Your task to perform on an android device: turn off picture-in-picture Image 0: 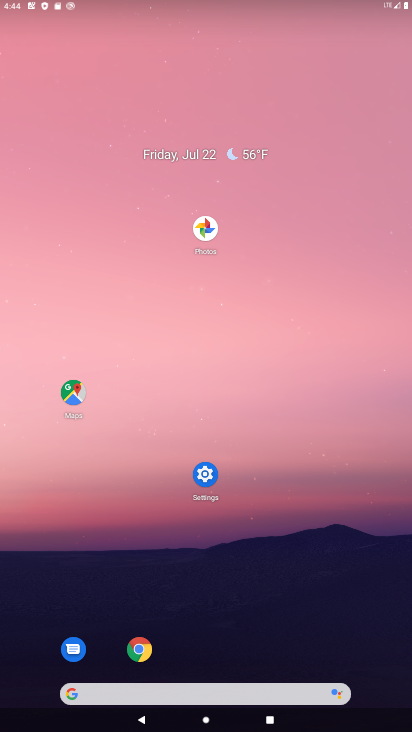
Step 0: drag from (174, 468) to (143, 26)
Your task to perform on an android device: turn off picture-in-picture Image 1: 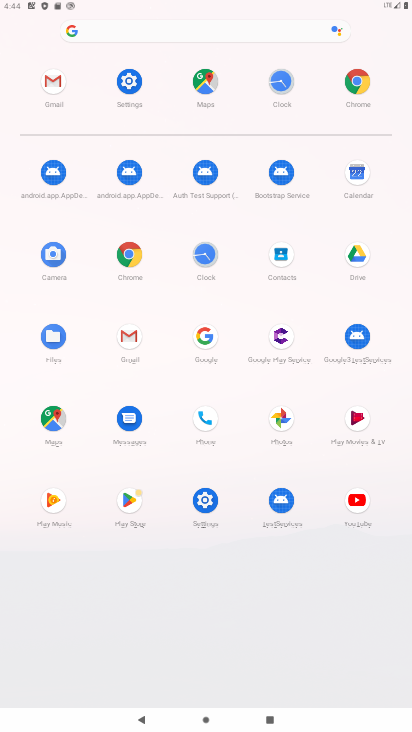
Step 1: click (123, 335)
Your task to perform on an android device: turn off picture-in-picture Image 2: 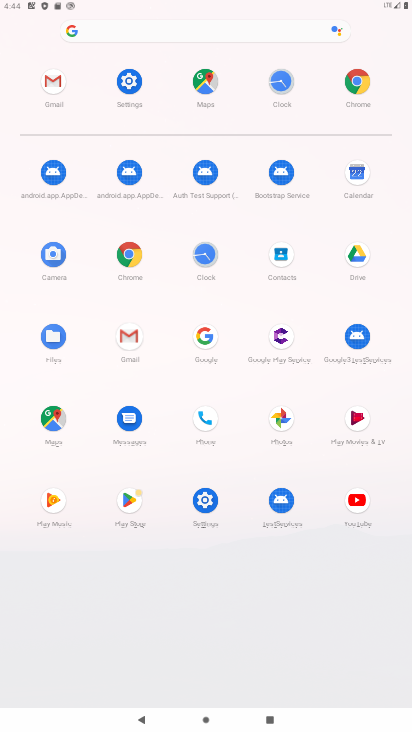
Step 2: click (123, 256)
Your task to perform on an android device: turn off picture-in-picture Image 3: 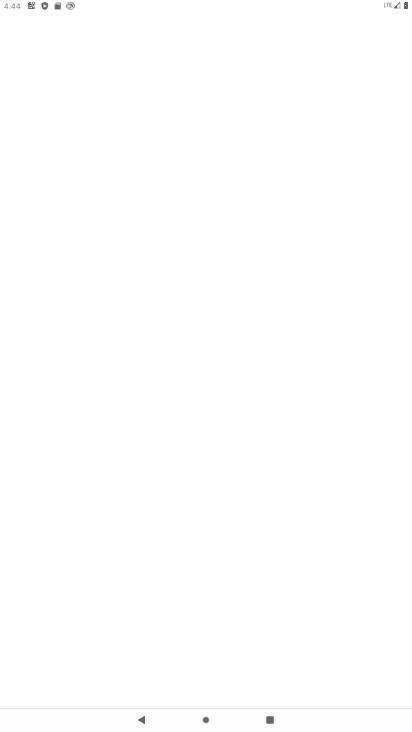
Step 3: click (123, 256)
Your task to perform on an android device: turn off picture-in-picture Image 4: 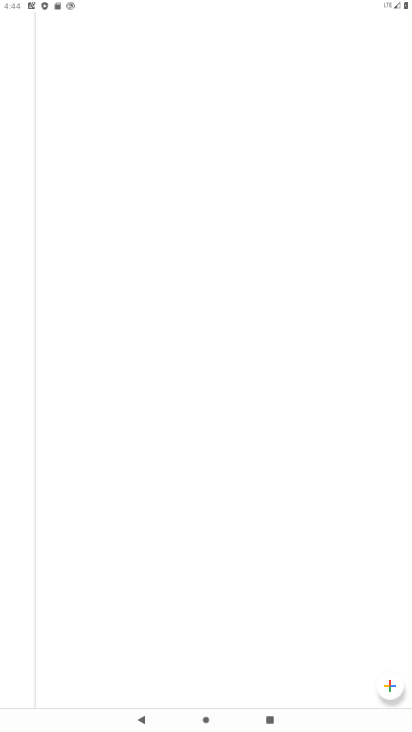
Step 4: click (123, 256)
Your task to perform on an android device: turn off picture-in-picture Image 5: 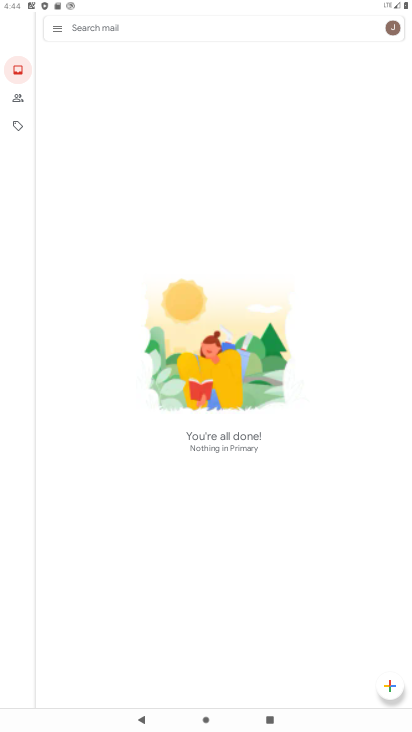
Step 5: press back button
Your task to perform on an android device: turn off picture-in-picture Image 6: 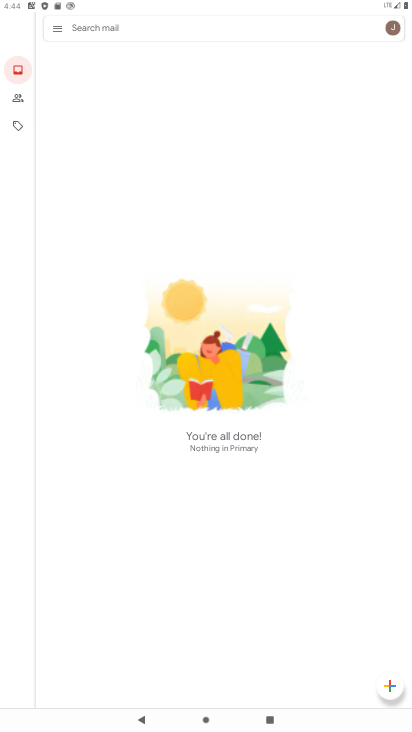
Step 6: press back button
Your task to perform on an android device: turn off picture-in-picture Image 7: 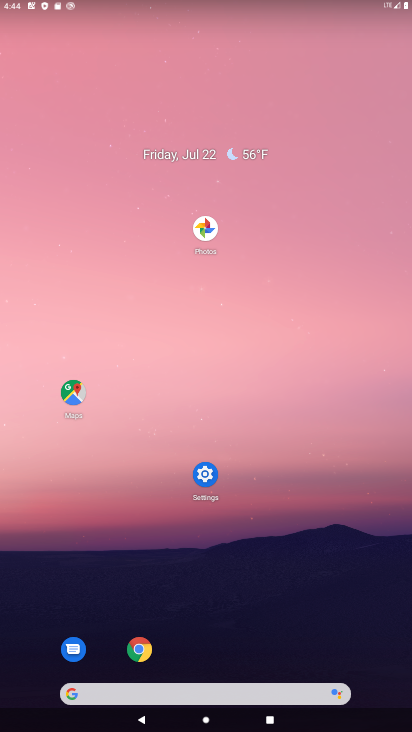
Step 7: click (140, 650)
Your task to perform on an android device: turn off picture-in-picture Image 8: 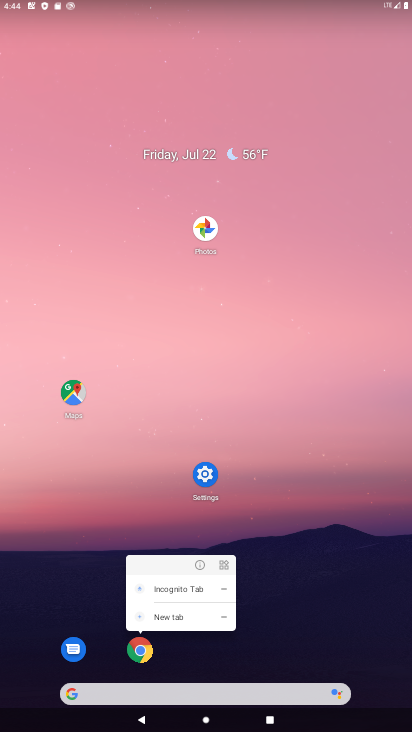
Step 8: click (201, 567)
Your task to perform on an android device: turn off picture-in-picture Image 9: 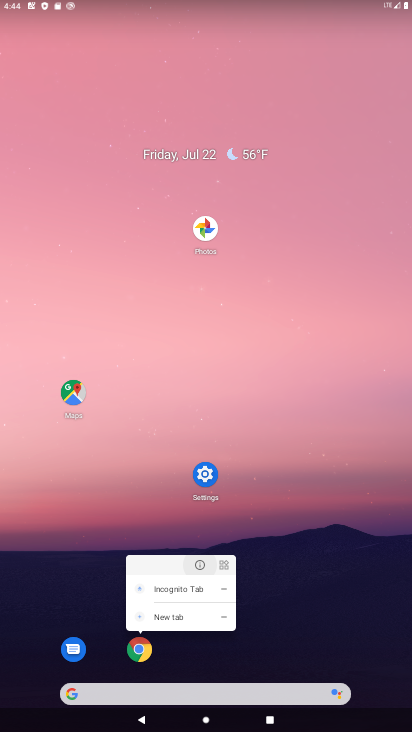
Step 9: click (201, 566)
Your task to perform on an android device: turn off picture-in-picture Image 10: 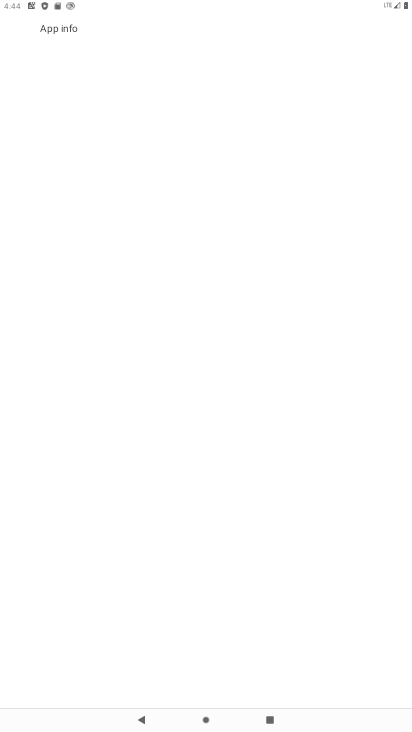
Step 10: click (202, 565)
Your task to perform on an android device: turn off picture-in-picture Image 11: 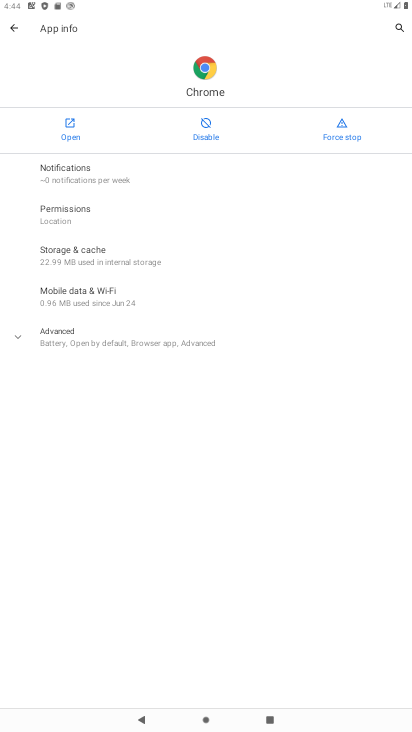
Step 11: click (64, 332)
Your task to perform on an android device: turn off picture-in-picture Image 12: 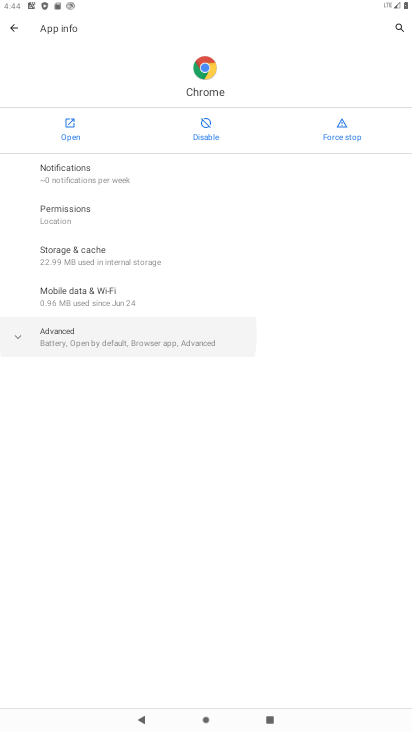
Step 12: click (66, 331)
Your task to perform on an android device: turn off picture-in-picture Image 13: 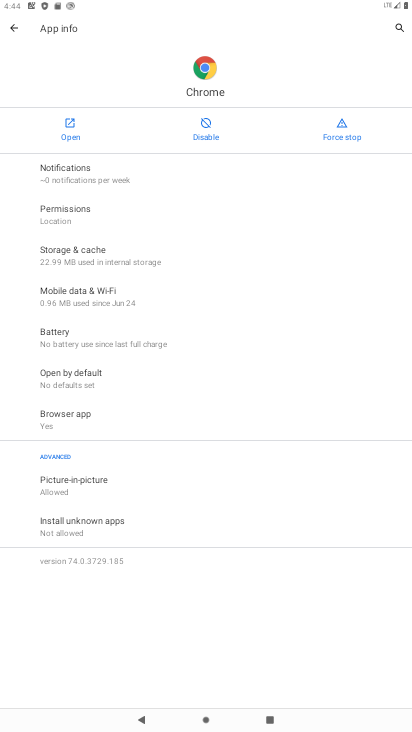
Step 13: click (44, 482)
Your task to perform on an android device: turn off picture-in-picture Image 14: 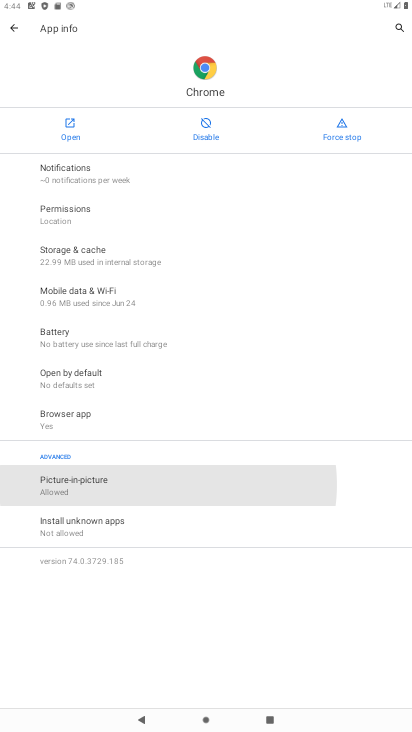
Step 14: click (44, 482)
Your task to perform on an android device: turn off picture-in-picture Image 15: 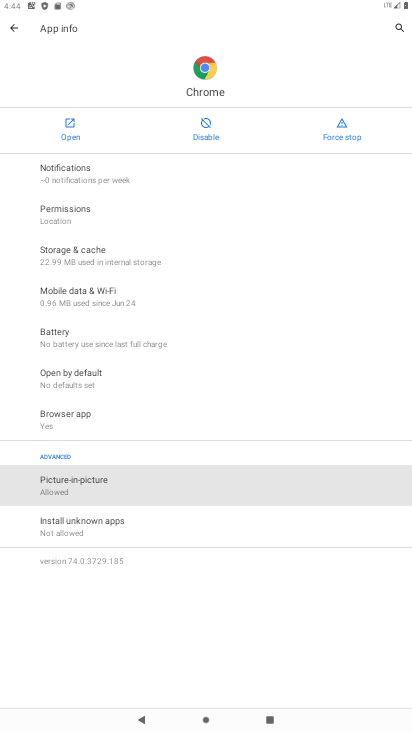
Step 15: click (44, 482)
Your task to perform on an android device: turn off picture-in-picture Image 16: 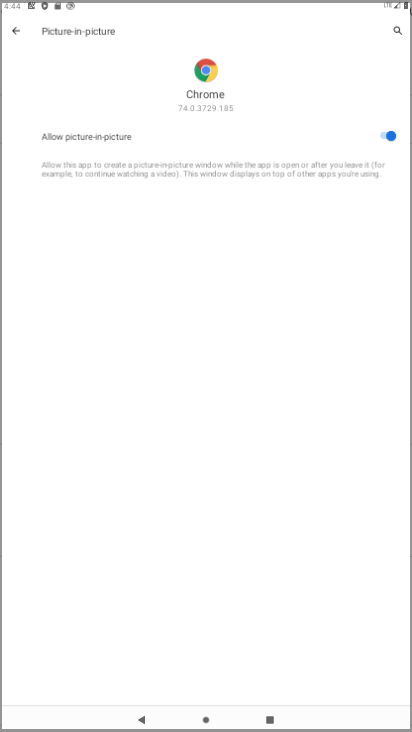
Step 16: click (44, 482)
Your task to perform on an android device: turn off picture-in-picture Image 17: 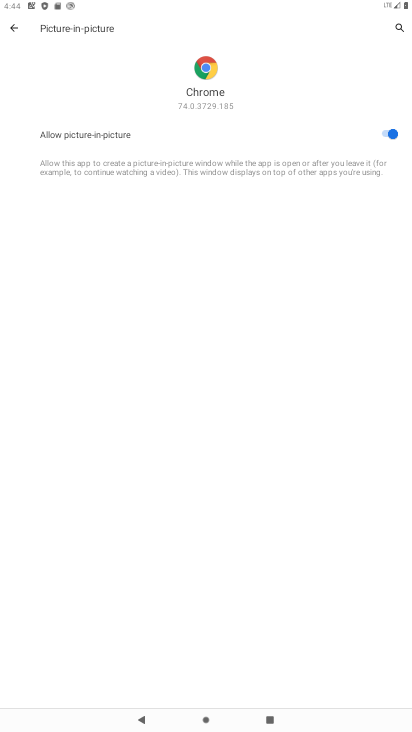
Step 17: click (64, 485)
Your task to perform on an android device: turn off picture-in-picture Image 18: 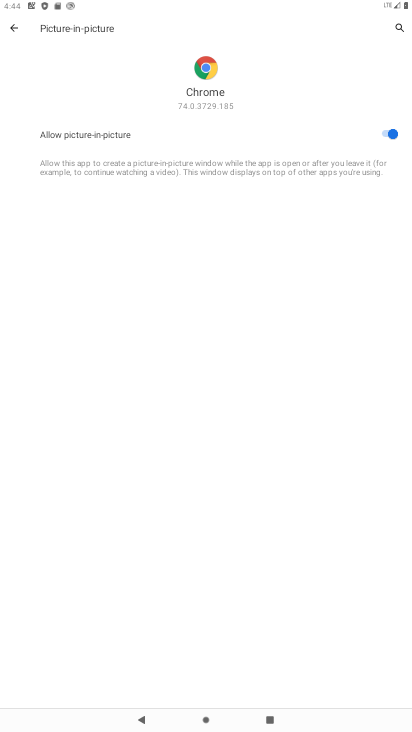
Step 18: click (64, 485)
Your task to perform on an android device: turn off picture-in-picture Image 19: 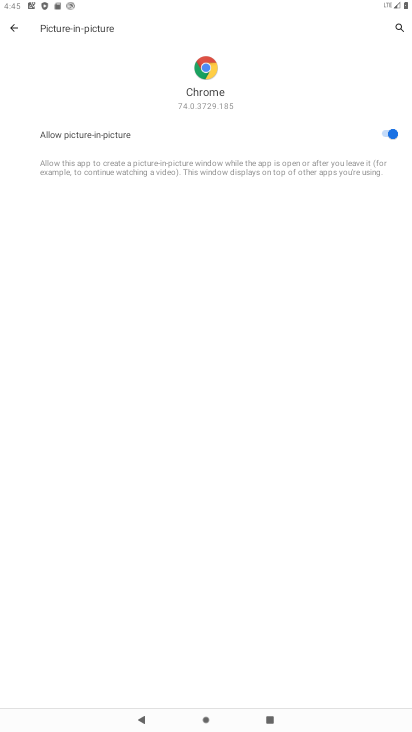
Step 19: click (391, 133)
Your task to perform on an android device: turn off picture-in-picture Image 20: 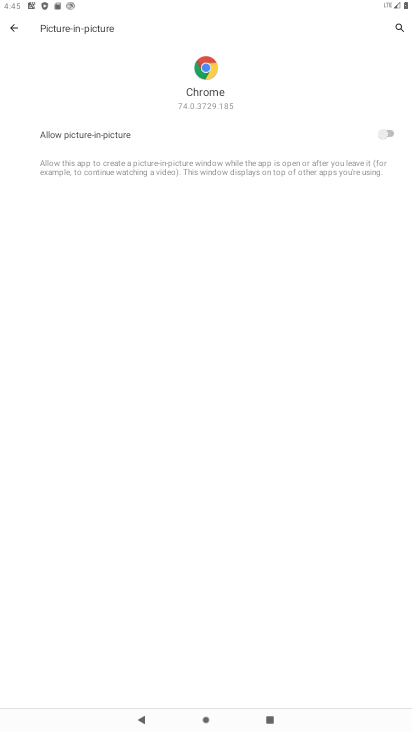
Step 20: task complete